Your task to perform on an android device: turn off location history Image 0: 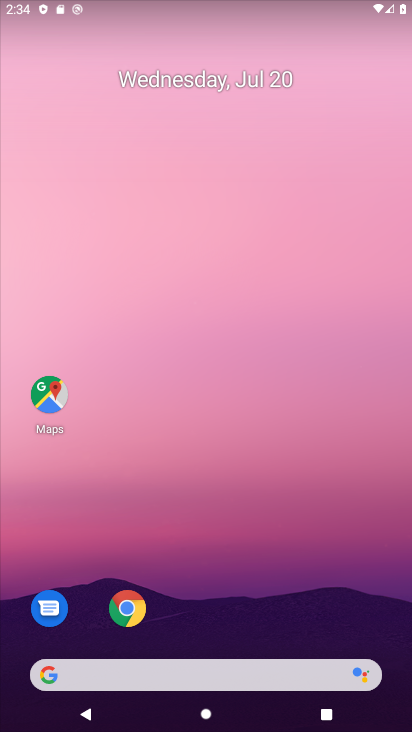
Step 0: drag from (225, 628) to (205, 140)
Your task to perform on an android device: turn off location history Image 1: 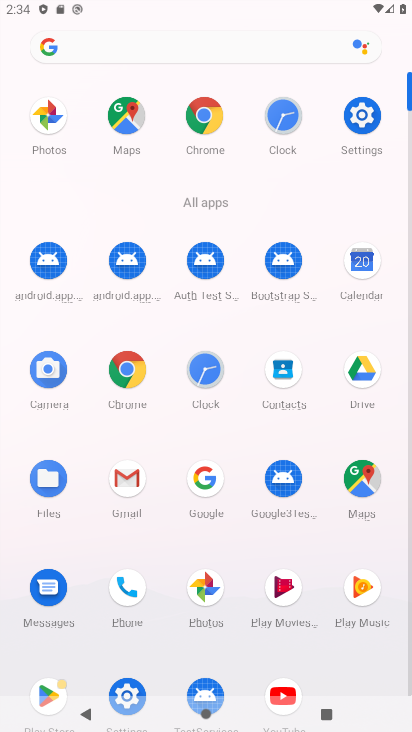
Step 1: click (361, 123)
Your task to perform on an android device: turn off location history Image 2: 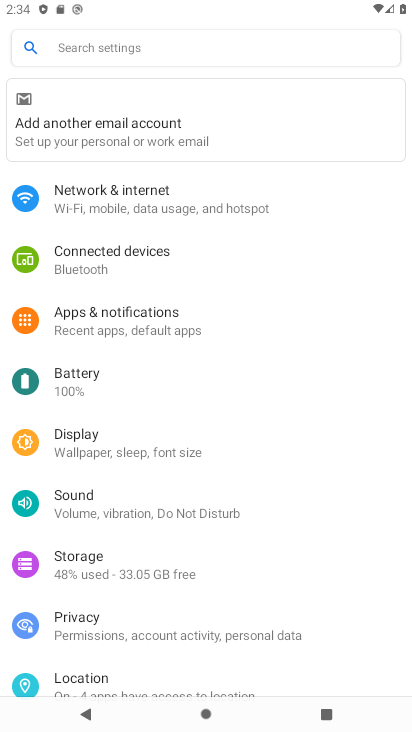
Step 2: click (103, 682)
Your task to perform on an android device: turn off location history Image 3: 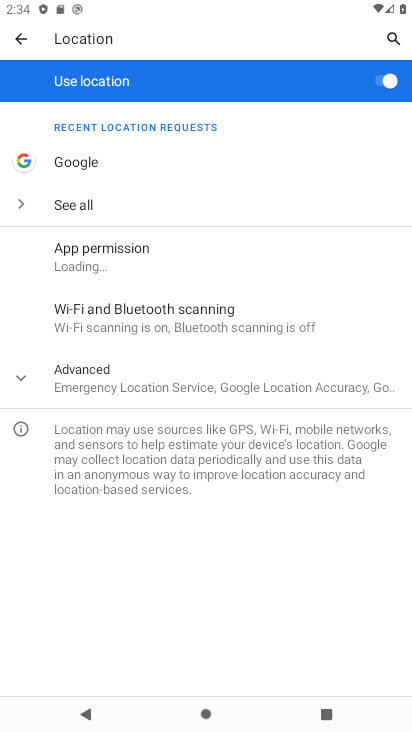
Step 3: click (108, 390)
Your task to perform on an android device: turn off location history Image 4: 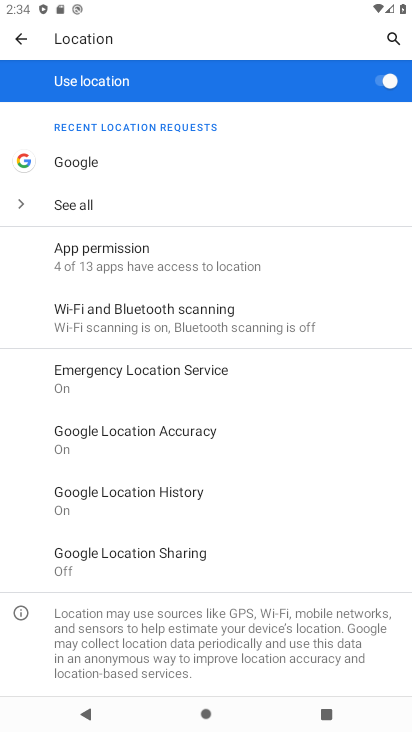
Step 4: click (134, 503)
Your task to perform on an android device: turn off location history Image 5: 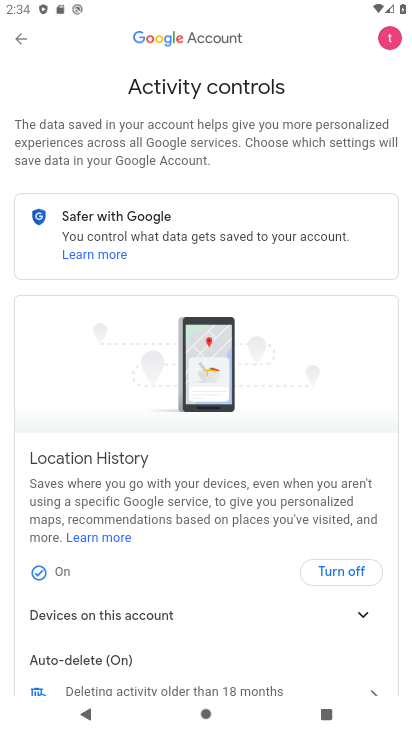
Step 5: click (339, 574)
Your task to perform on an android device: turn off location history Image 6: 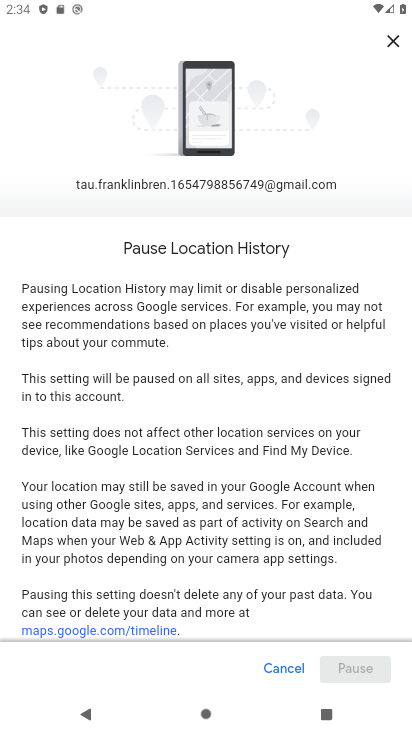
Step 6: drag from (311, 605) to (310, 202)
Your task to perform on an android device: turn off location history Image 7: 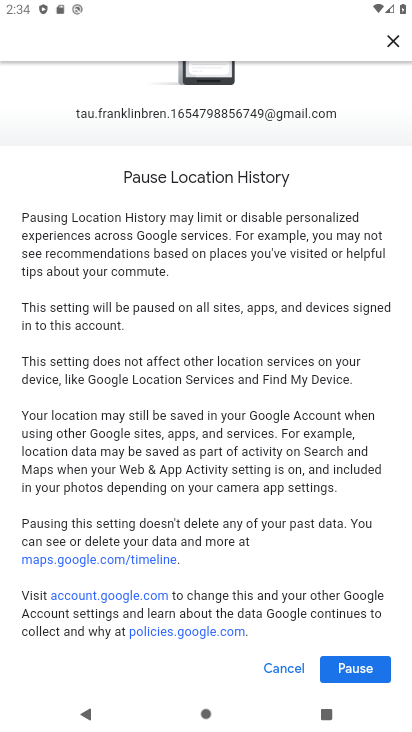
Step 7: drag from (305, 581) to (327, 367)
Your task to perform on an android device: turn off location history Image 8: 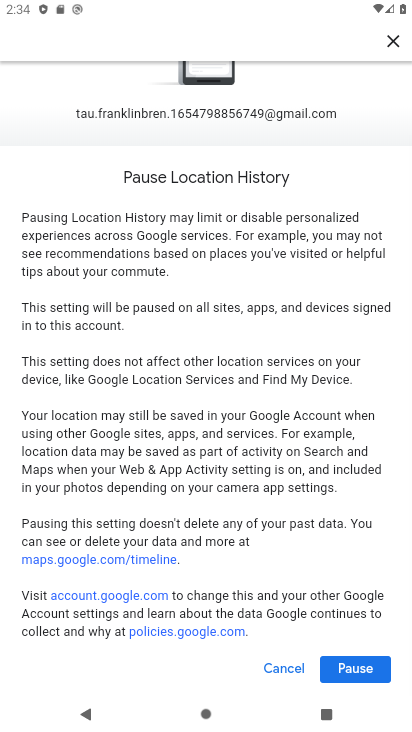
Step 8: click (349, 672)
Your task to perform on an android device: turn off location history Image 9: 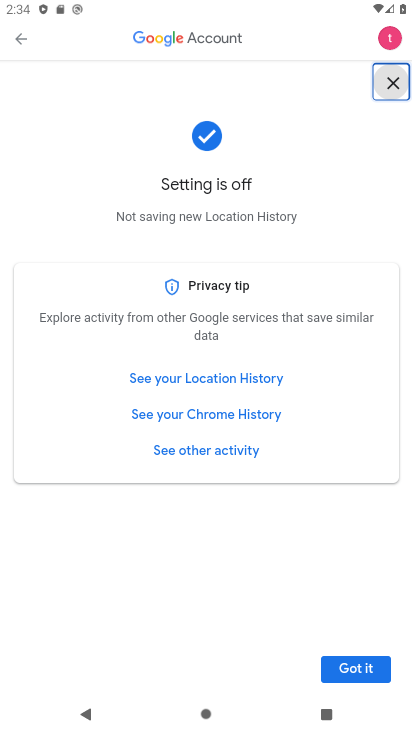
Step 9: click (351, 670)
Your task to perform on an android device: turn off location history Image 10: 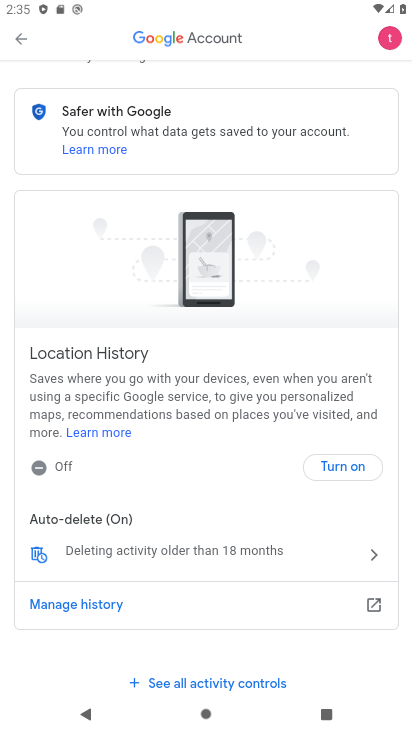
Step 10: task complete